Your task to perform on an android device: open chrome and create a bookmark for the current page Image 0: 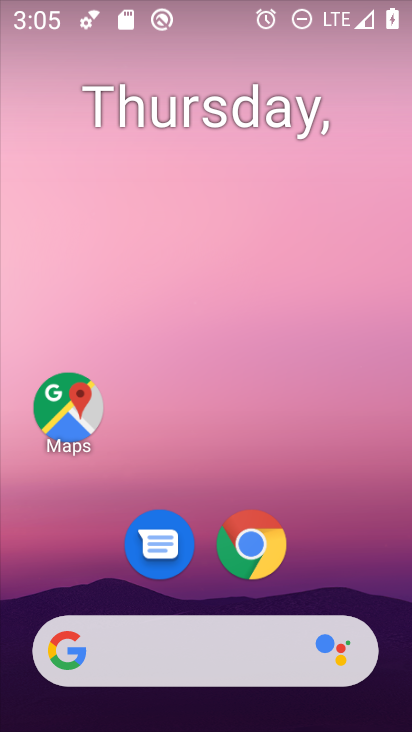
Step 0: click (259, 545)
Your task to perform on an android device: open chrome and create a bookmark for the current page Image 1: 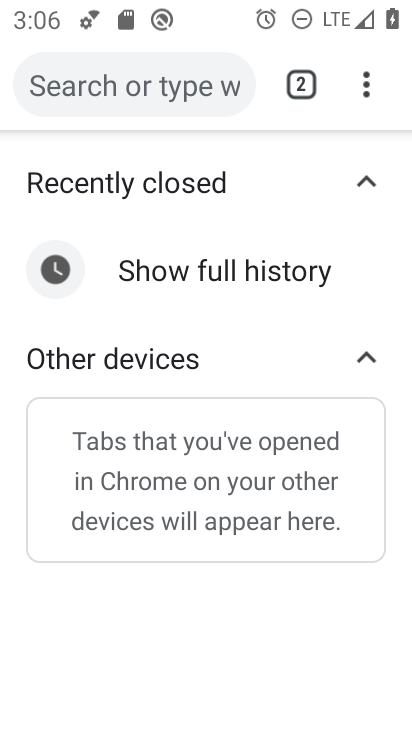
Step 1: click (365, 84)
Your task to perform on an android device: open chrome and create a bookmark for the current page Image 2: 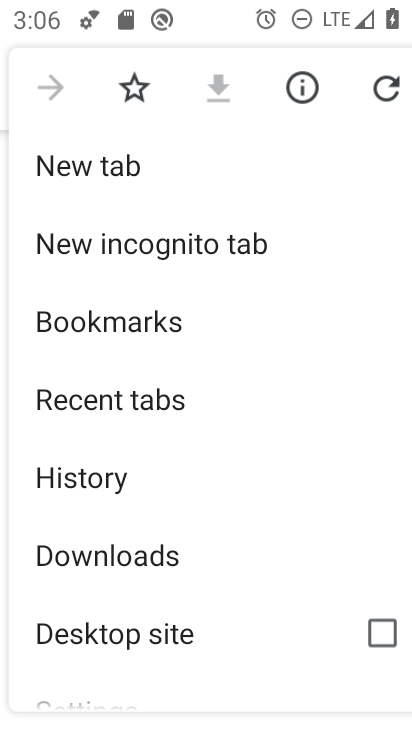
Step 2: click (140, 91)
Your task to perform on an android device: open chrome and create a bookmark for the current page Image 3: 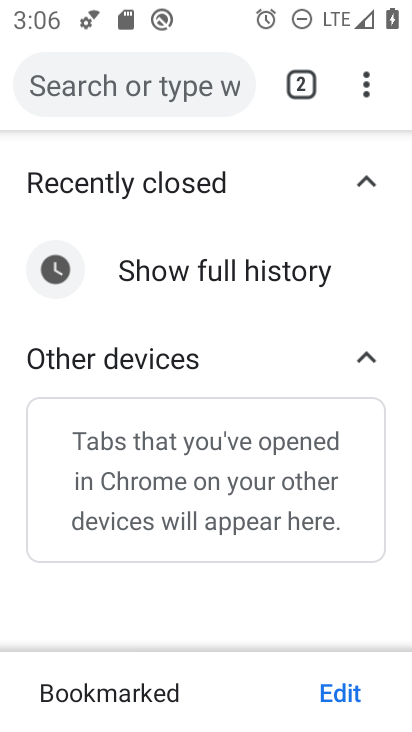
Step 3: task complete